Your task to perform on an android device: Clear the shopping cart on target. Search for macbook on target, select the first entry, and add it to the cart. Image 0: 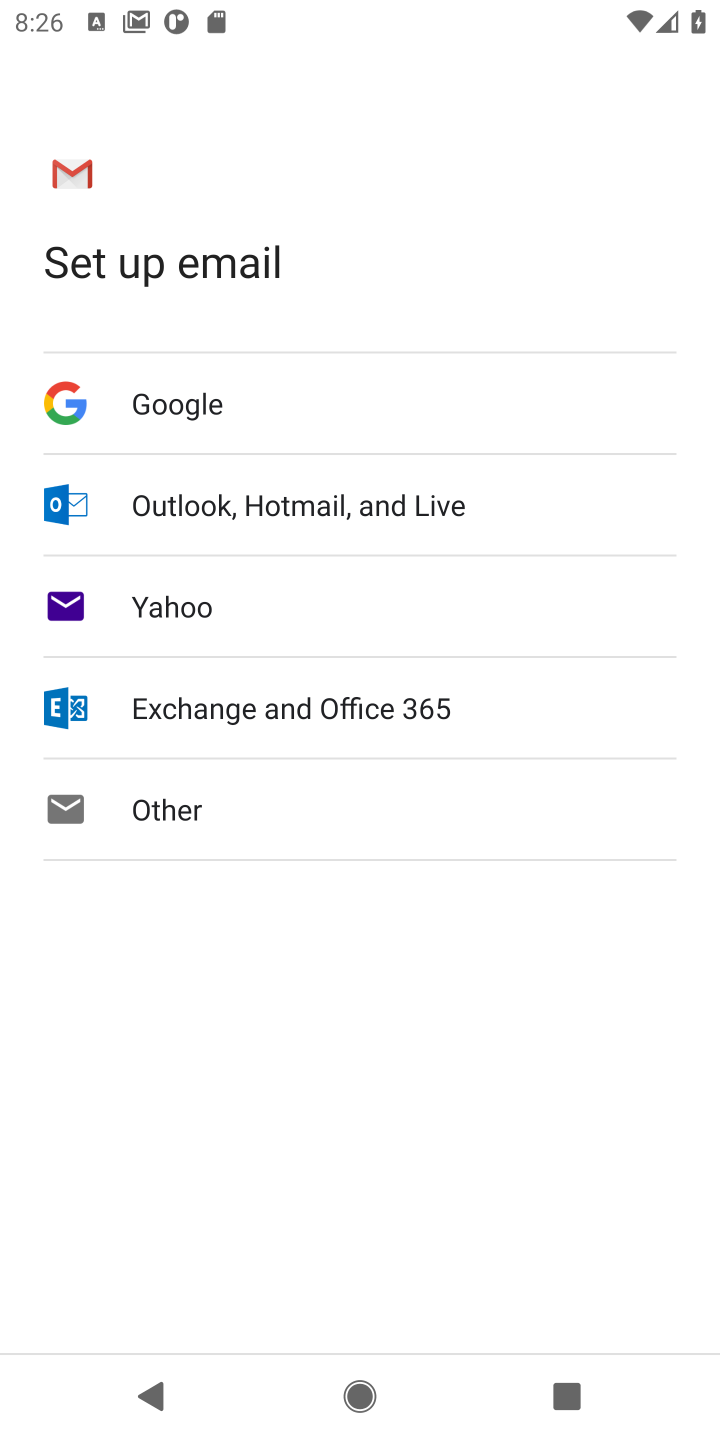
Step 0: press home button
Your task to perform on an android device: Clear the shopping cart on target. Search for macbook on target, select the first entry, and add it to the cart. Image 1: 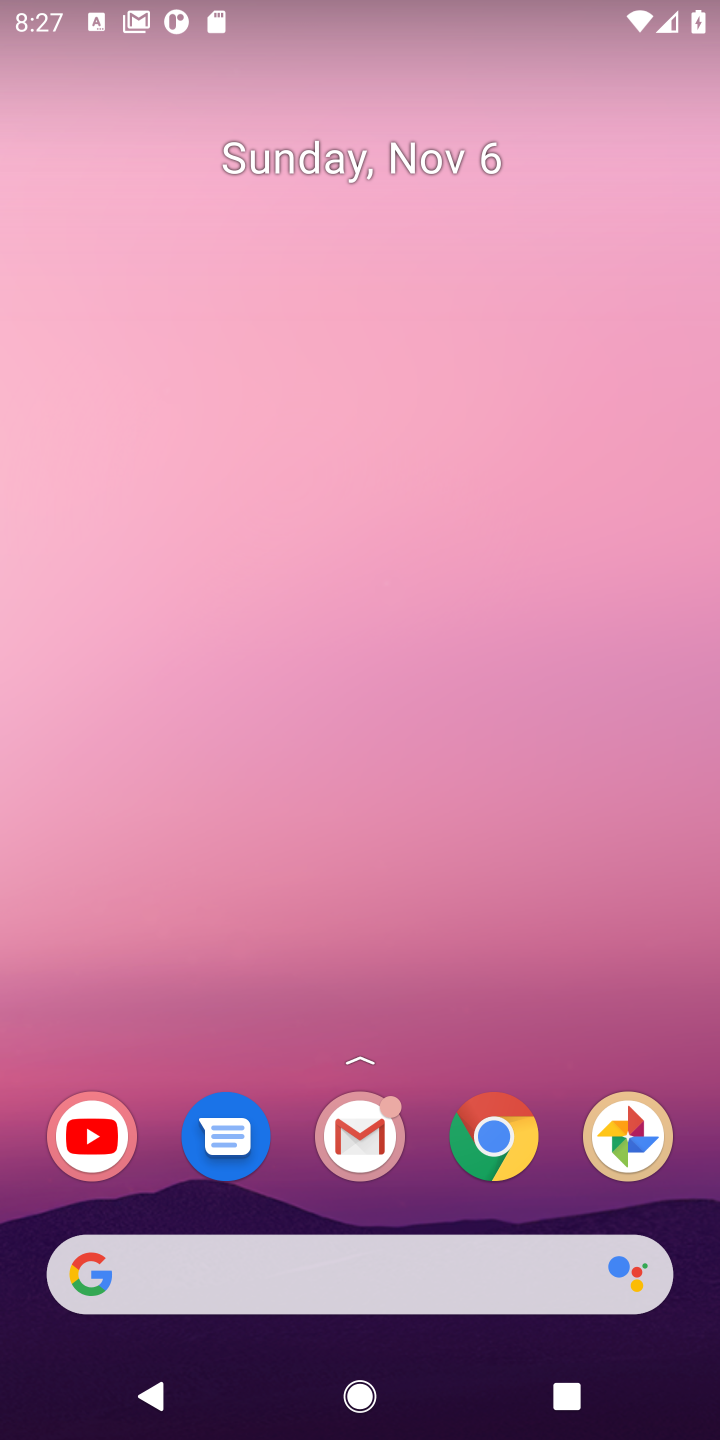
Step 1: click (213, 1264)
Your task to perform on an android device: Clear the shopping cart on target. Search for macbook on target, select the first entry, and add it to the cart. Image 2: 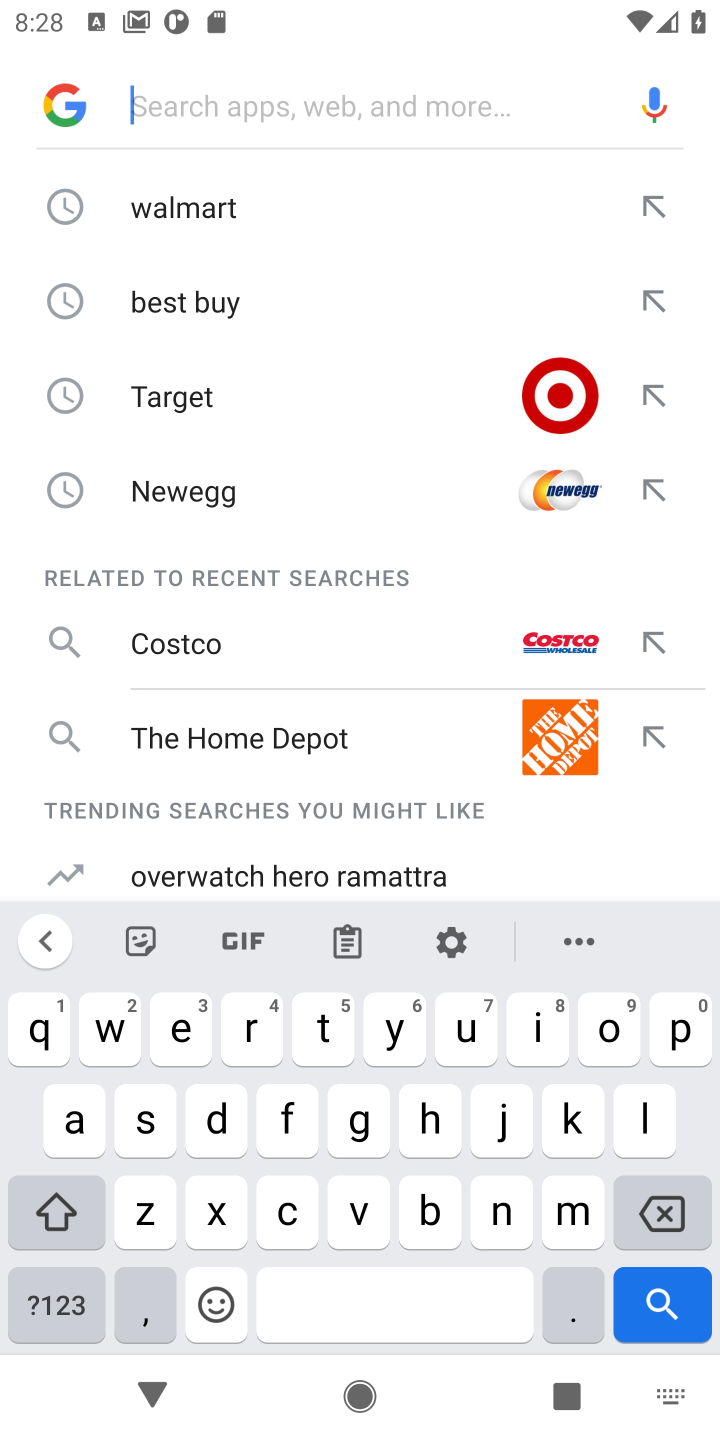
Step 2: click (292, 393)
Your task to perform on an android device: Clear the shopping cart on target. Search for macbook on target, select the first entry, and add it to the cart. Image 3: 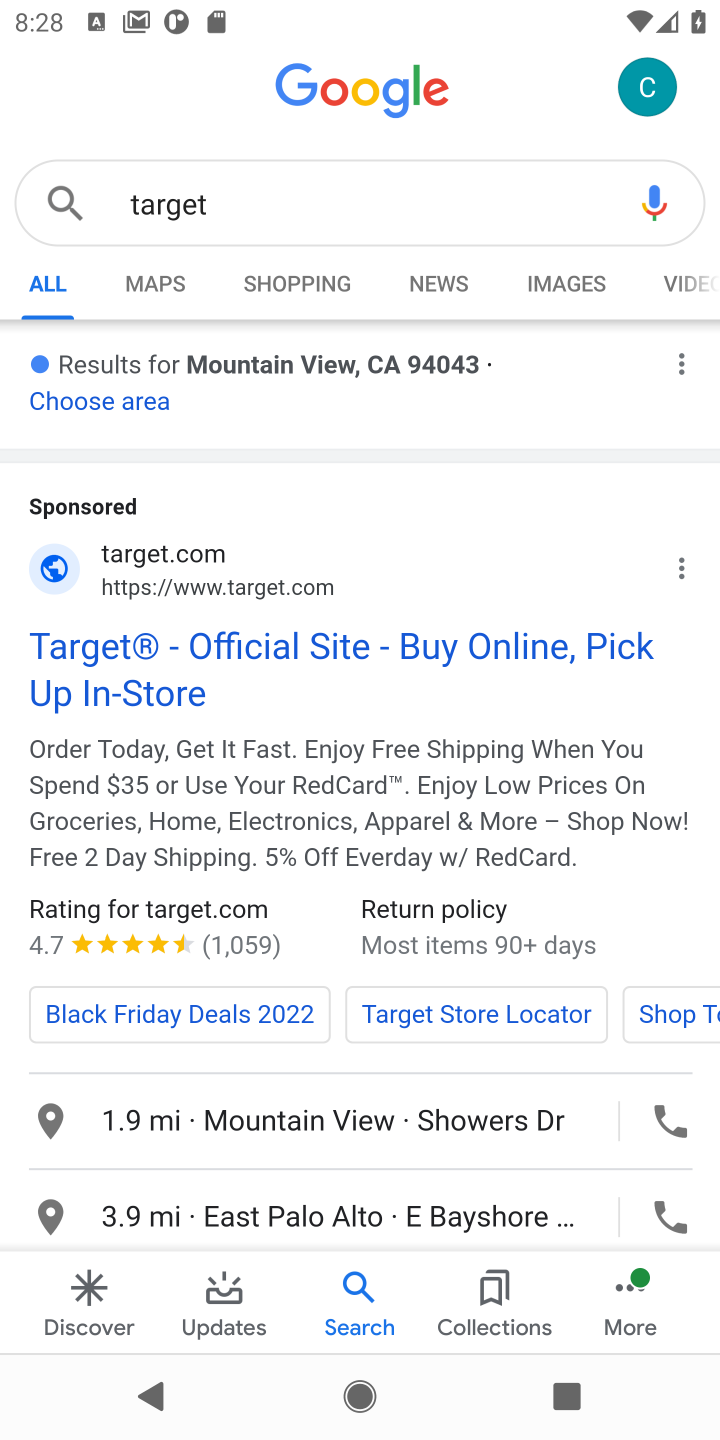
Step 3: click (352, 668)
Your task to perform on an android device: Clear the shopping cart on target. Search for macbook on target, select the first entry, and add it to the cart. Image 4: 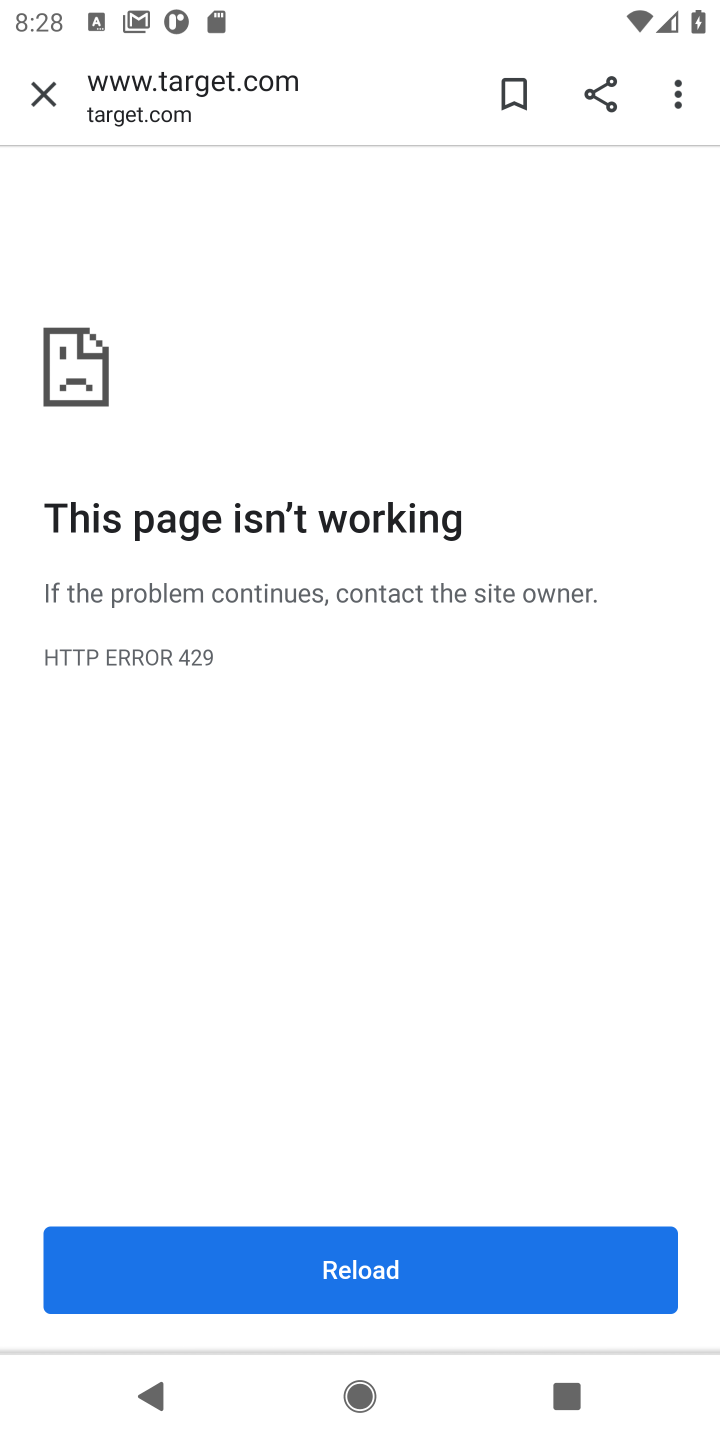
Step 4: task complete